Your task to perform on an android device: Show me productivity apps on the Play Store Image 0: 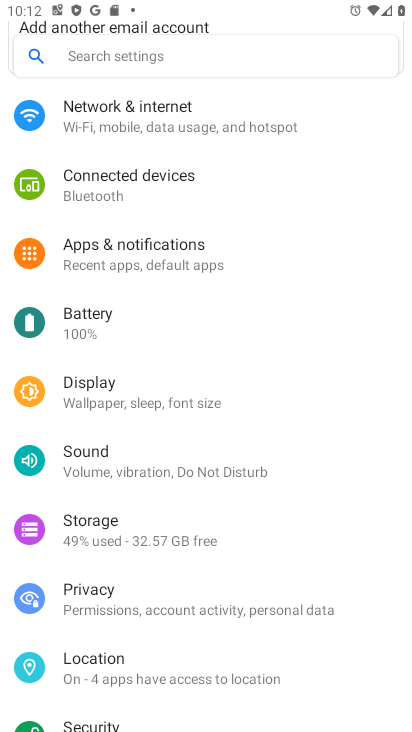
Step 0: press home button
Your task to perform on an android device: Show me productivity apps on the Play Store Image 1: 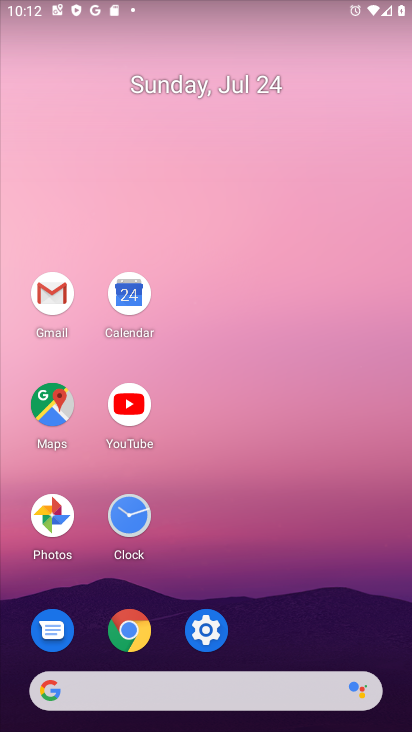
Step 1: drag from (255, 599) to (205, 145)
Your task to perform on an android device: Show me productivity apps on the Play Store Image 2: 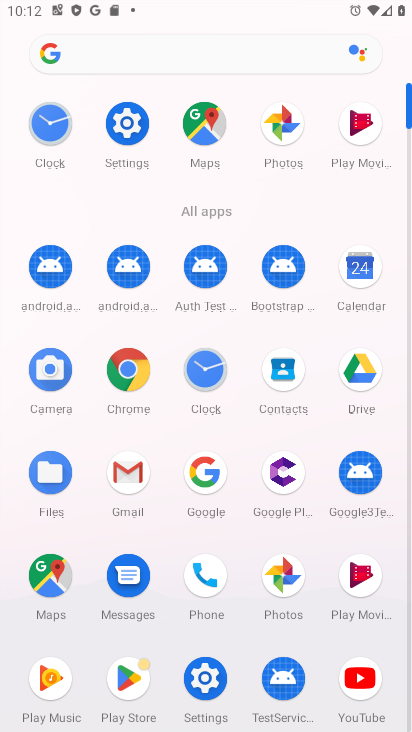
Step 2: click (123, 680)
Your task to perform on an android device: Show me productivity apps on the Play Store Image 3: 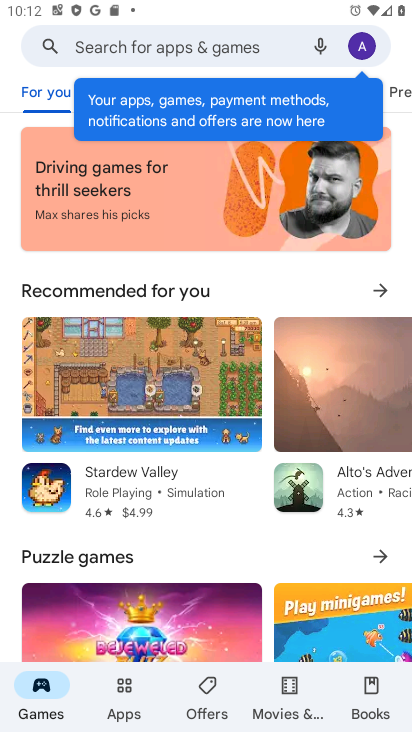
Step 3: click (123, 694)
Your task to perform on an android device: Show me productivity apps on the Play Store Image 4: 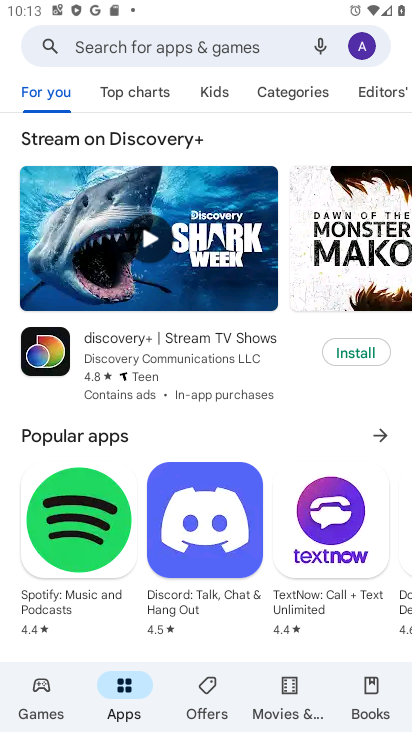
Step 4: task complete